Your task to perform on an android device: all mails in gmail Image 0: 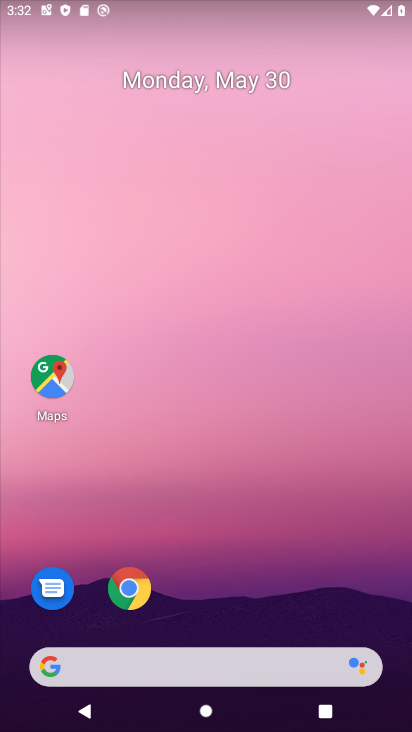
Step 0: drag from (231, 488) to (167, 6)
Your task to perform on an android device: all mails in gmail Image 1: 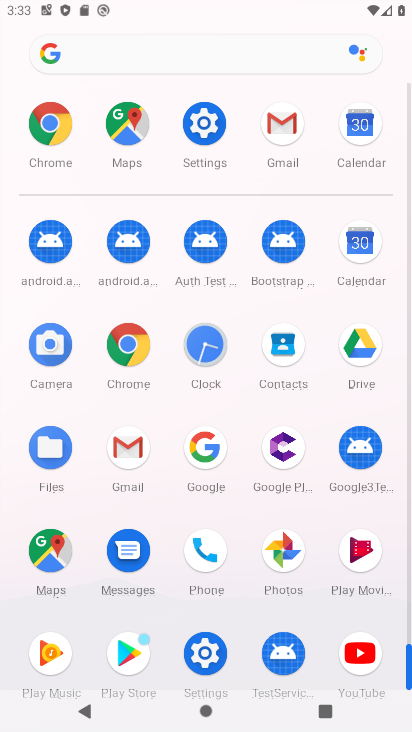
Step 1: click (125, 446)
Your task to perform on an android device: all mails in gmail Image 2: 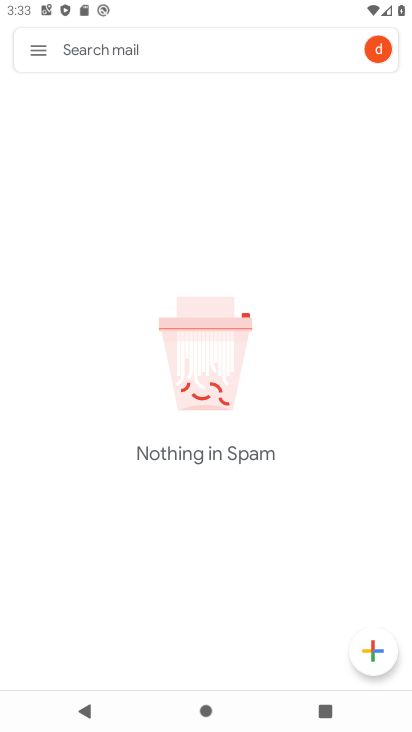
Step 2: click (44, 48)
Your task to perform on an android device: all mails in gmail Image 3: 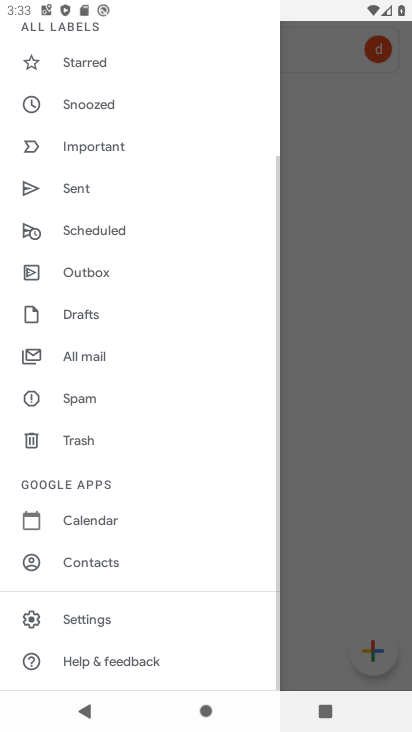
Step 3: click (116, 351)
Your task to perform on an android device: all mails in gmail Image 4: 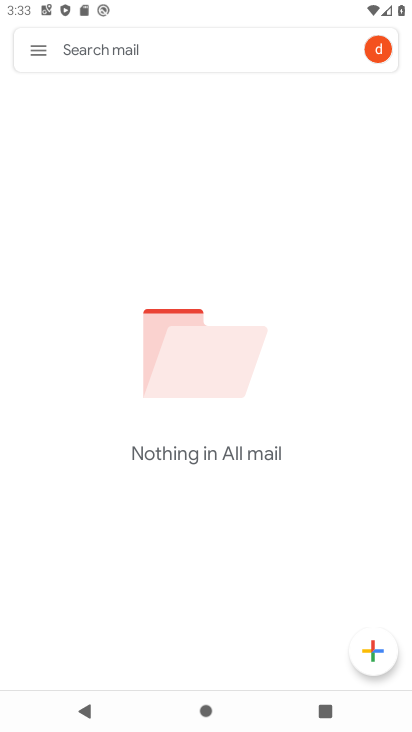
Step 4: task complete